Your task to perform on an android device: Go to CNN.com Image 0: 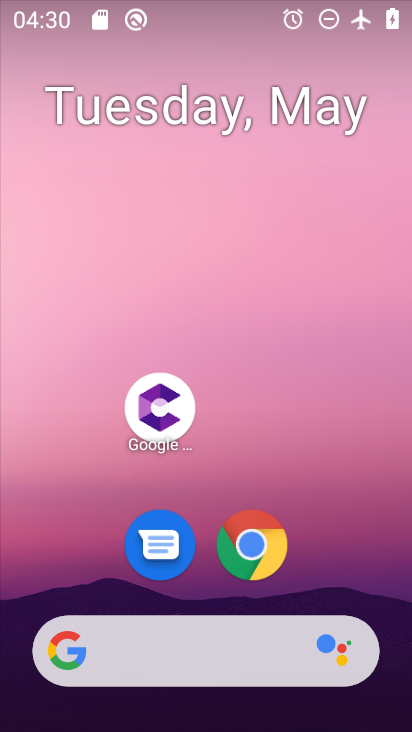
Step 0: drag from (381, 584) to (357, 265)
Your task to perform on an android device: Go to CNN.com Image 1: 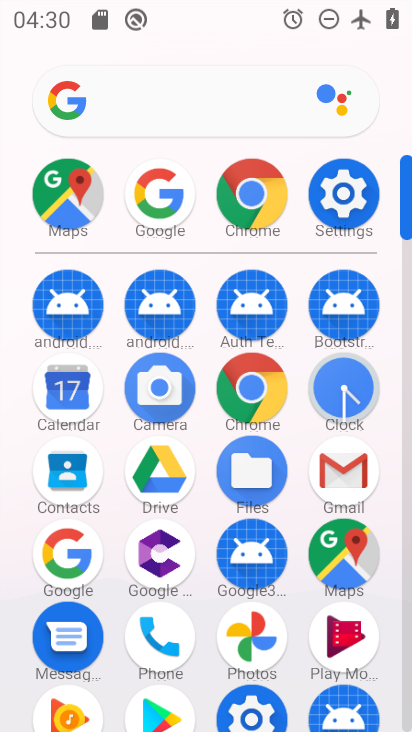
Step 1: click (263, 386)
Your task to perform on an android device: Go to CNN.com Image 2: 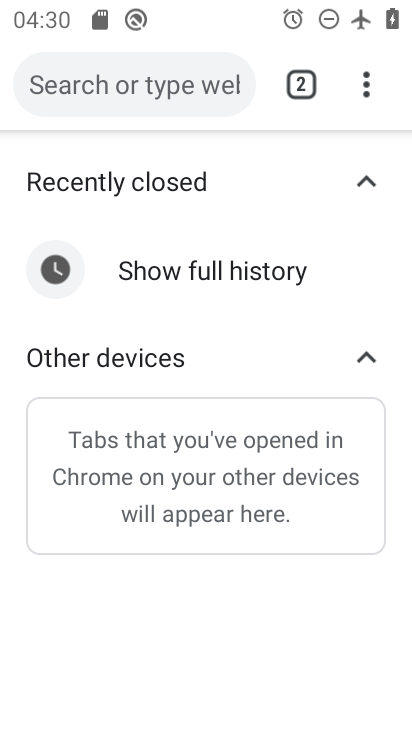
Step 2: click (134, 100)
Your task to perform on an android device: Go to CNN.com Image 3: 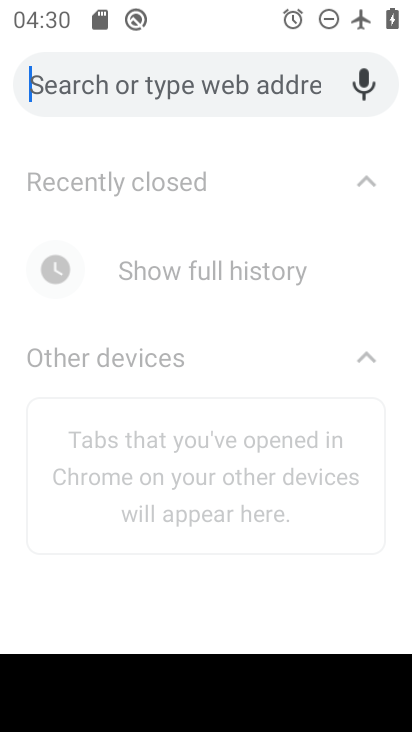
Step 3: type "cnn.com"
Your task to perform on an android device: Go to CNN.com Image 4: 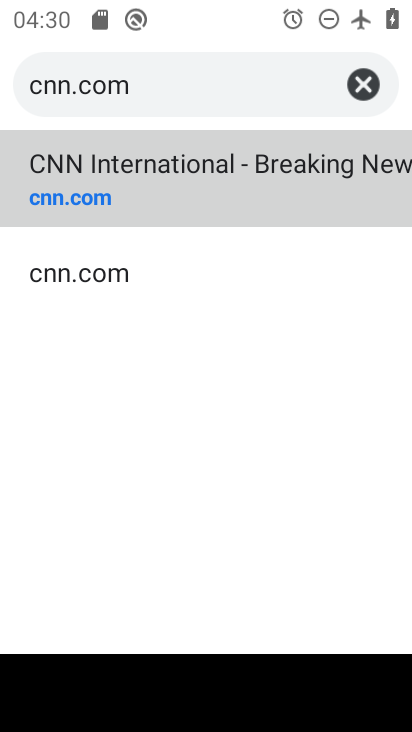
Step 4: click (166, 195)
Your task to perform on an android device: Go to CNN.com Image 5: 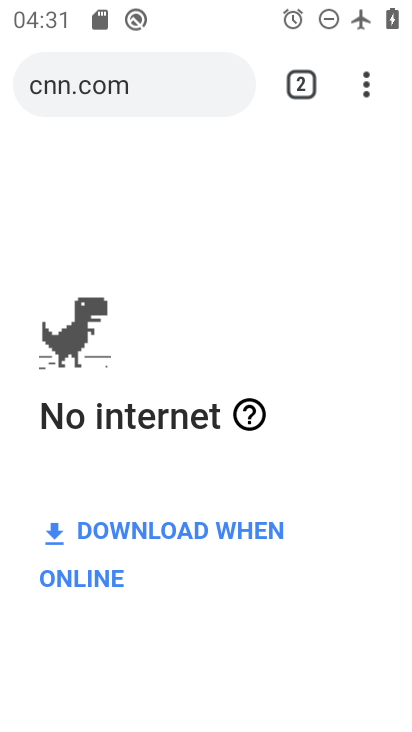
Step 5: task complete